Your task to perform on an android device: set default search engine in the chrome app Image 0: 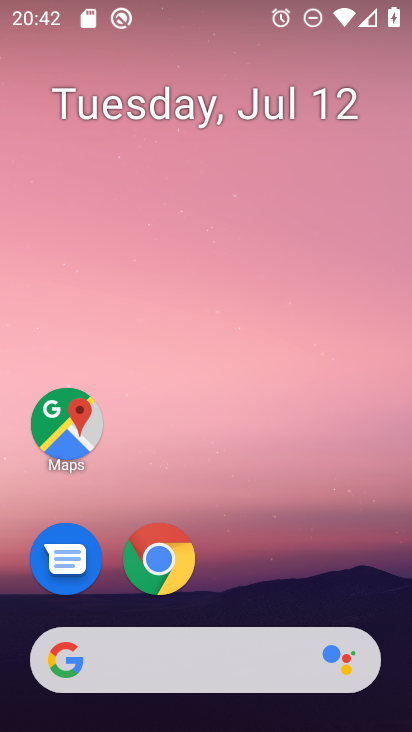
Step 0: drag from (357, 589) to (343, 131)
Your task to perform on an android device: set default search engine in the chrome app Image 1: 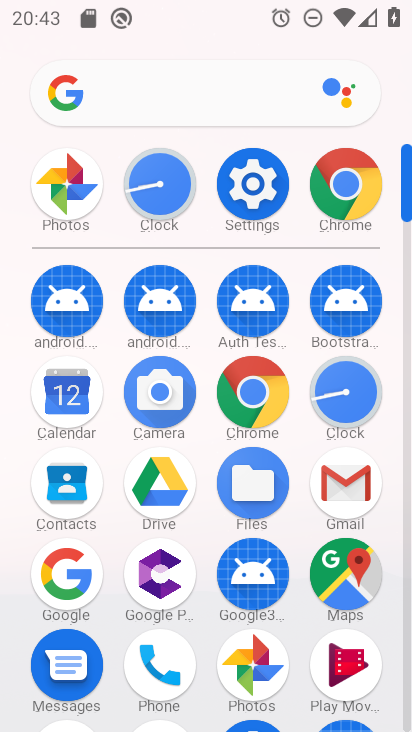
Step 1: click (260, 387)
Your task to perform on an android device: set default search engine in the chrome app Image 2: 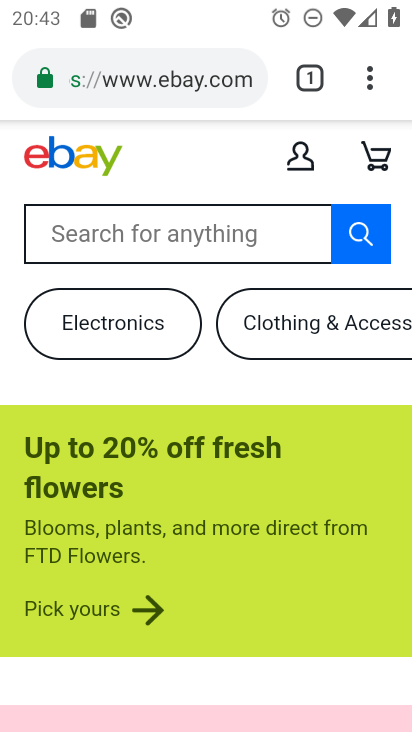
Step 2: click (371, 84)
Your task to perform on an android device: set default search engine in the chrome app Image 3: 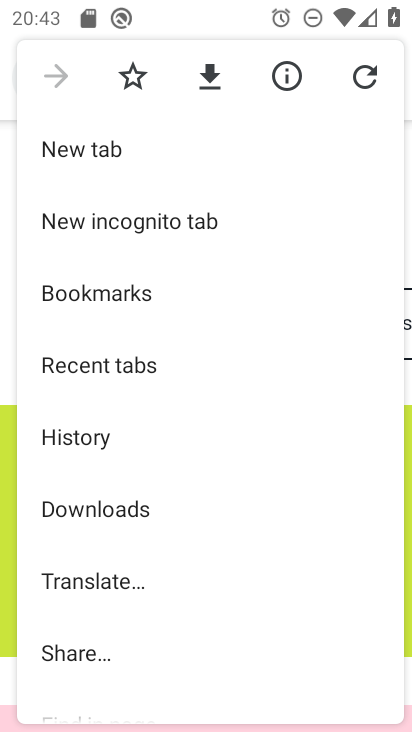
Step 3: drag from (299, 452) to (301, 318)
Your task to perform on an android device: set default search engine in the chrome app Image 4: 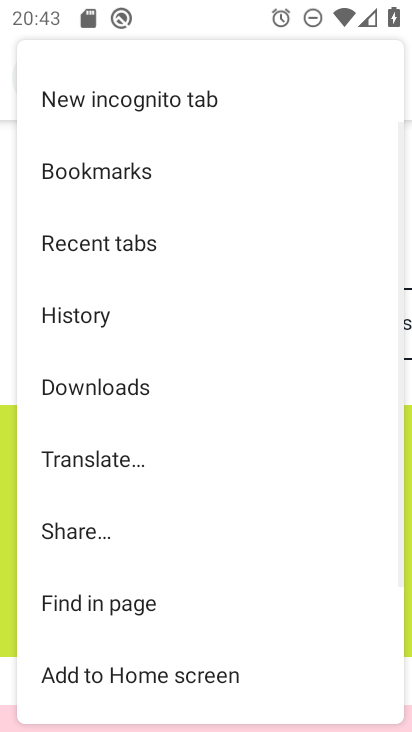
Step 4: drag from (291, 485) to (309, 349)
Your task to perform on an android device: set default search engine in the chrome app Image 5: 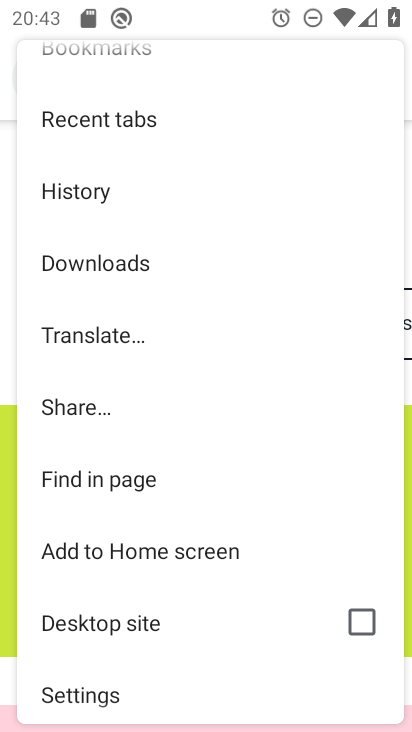
Step 5: drag from (277, 510) to (302, 322)
Your task to perform on an android device: set default search engine in the chrome app Image 6: 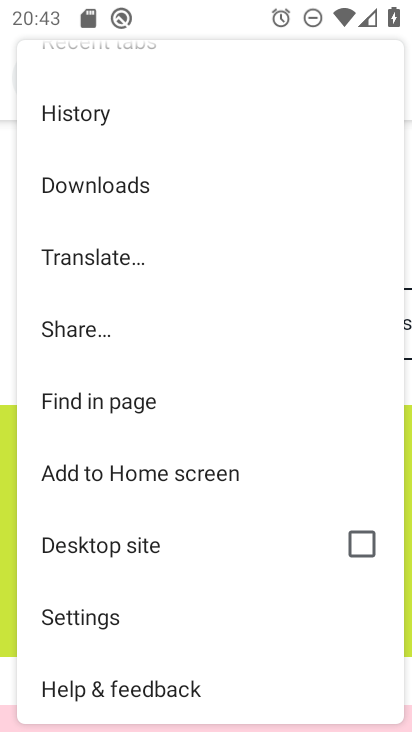
Step 6: click (178, 625)
Your task to perform on an android device: set default search engine in the chrome app Image 7: 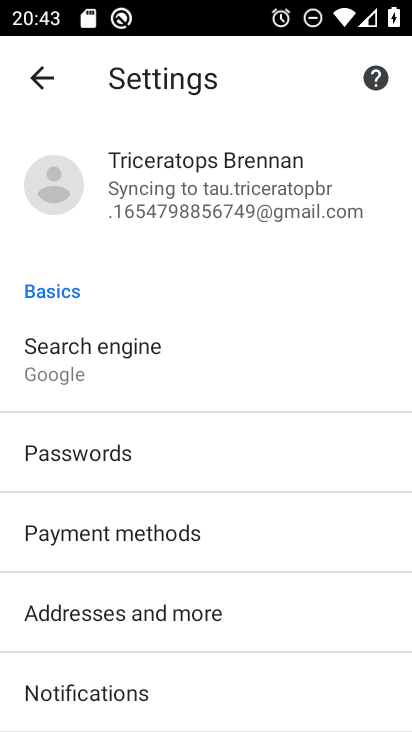
Step 7: drag from (294, 554) to (310, 425)
Your task to perform on an android device: set default search engine in the chrome app Image 8: 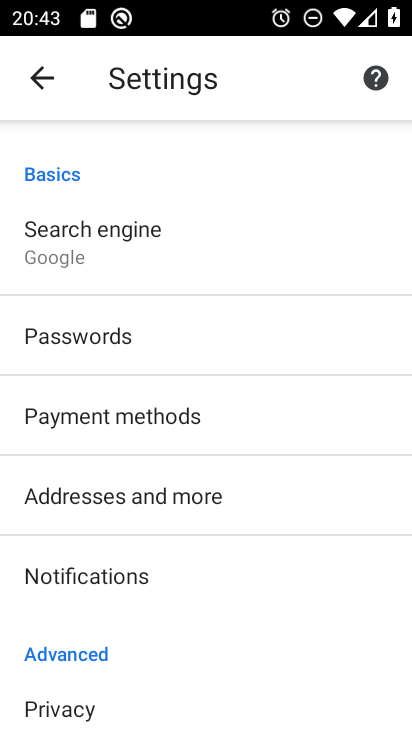
Step 8: drag from (298, 605) to (316, 496)
Your task to perform on an android device: set default search engine in the chrome app Image 9: 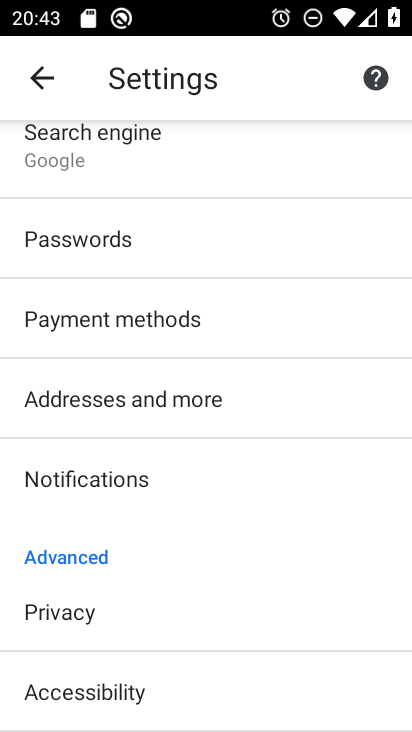
Step 9: drag from (313, 599) to (317, 464)
Your task to perform on an android device: set default search engine in the chrome app Image 10: 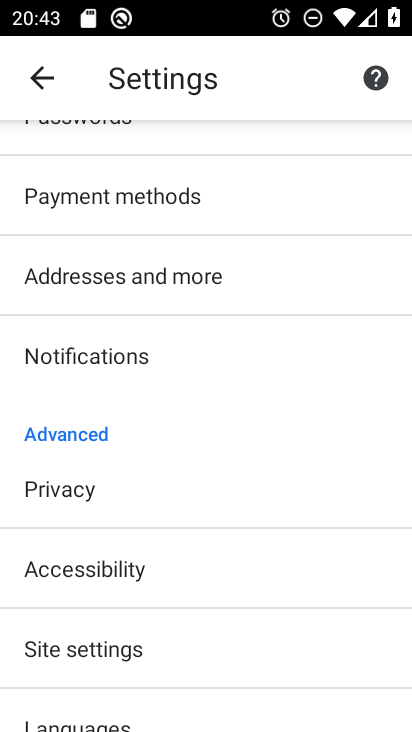
Step 10: drag from (341, 575) to (342, 391)
Your task to perform on an android device: set default search engine in the chrome app Image 11: 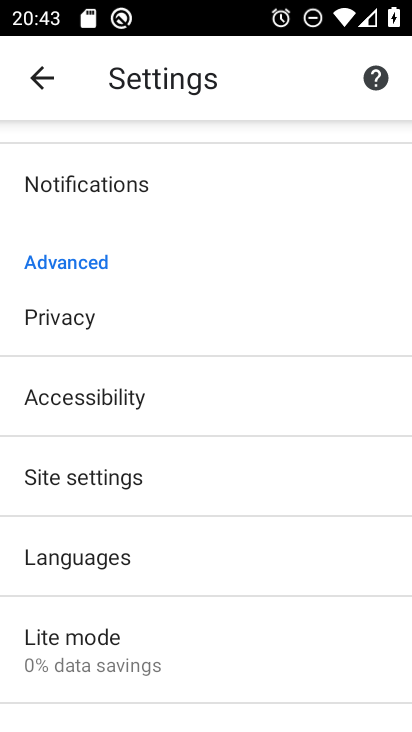
Step 11: drag from (341, 587) to (340, 390)
Your task to perform on an android device: set default search engine in the chrome app Image 12: 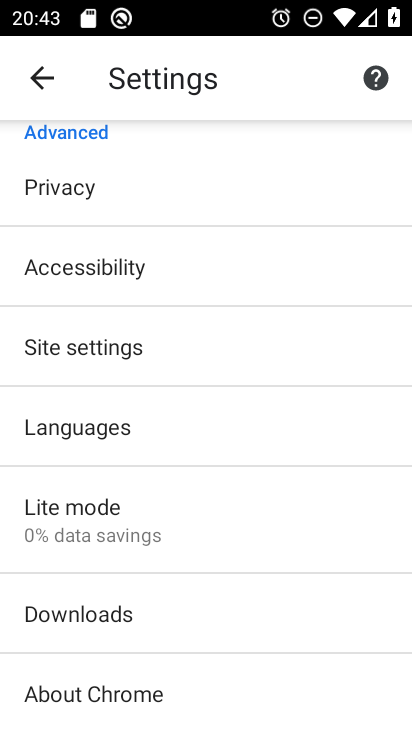
Step 12: drag from (337, 276) to (339, 481)
Your task to perform on an android device: set default search engine in the chrome app Image 13: 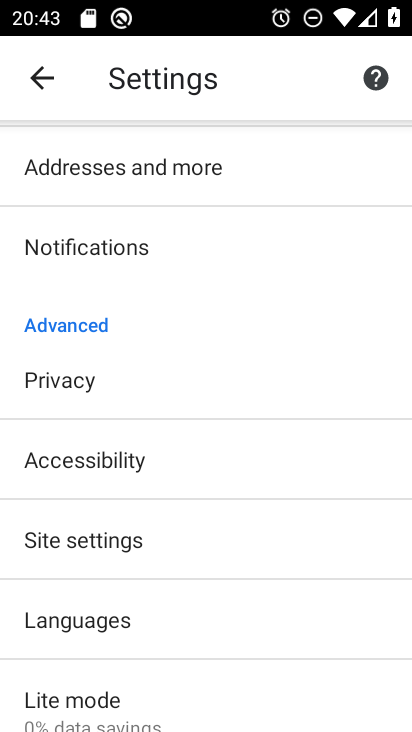
Step 13: drag from (334, 289) to (319, 485)
Your task to perform on an android device: set default search engine in the chrome app Image 14: 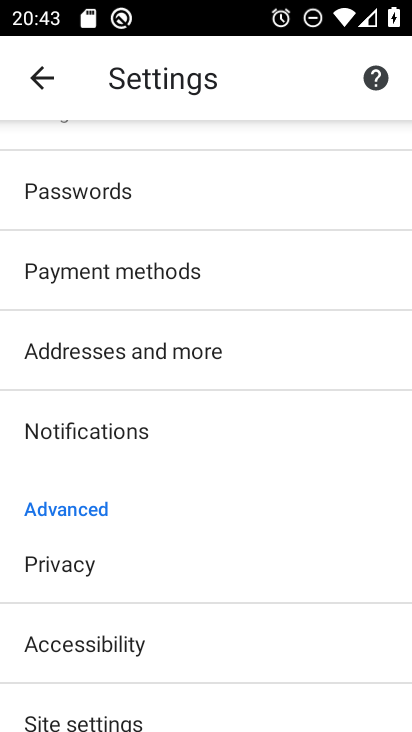
Step 14: drag from (316, 222) to (310, 459)
Your task to perform on an android device: set default search engine in the chrome app Image 15: 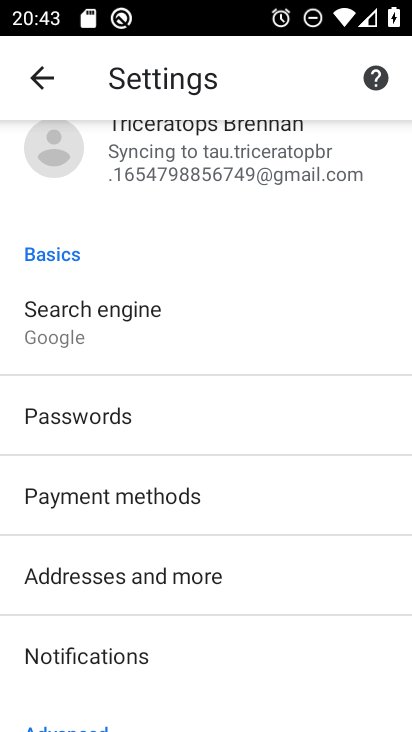
Step 15: drag from (328, 224) to (333, 444)
Your task to perform on an android device: set default search engine in the chrome app Image 16: 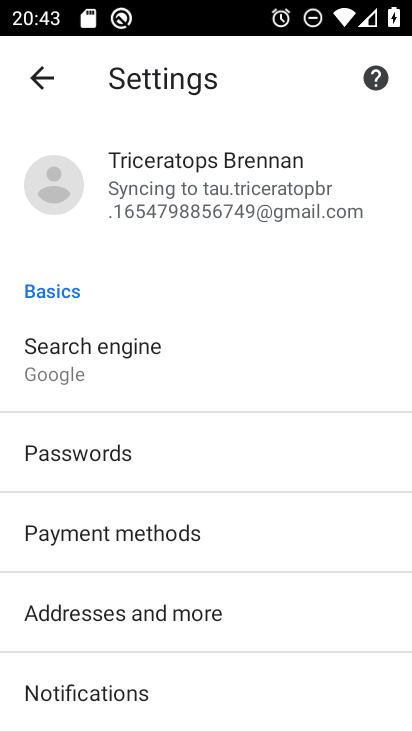
Step 16: click (87, 361)
Your task to perform on an android device: set default search engine in the chrome app Image 17: 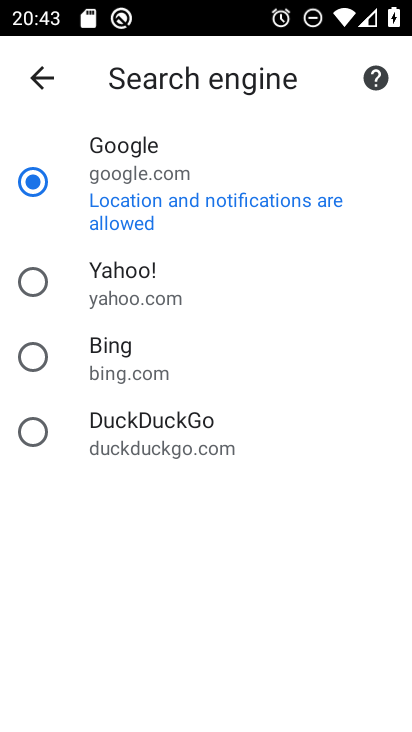
Step 17: click (103, 361)
Your task to perform on an android device: set default search engine in the chrome app Image 18: 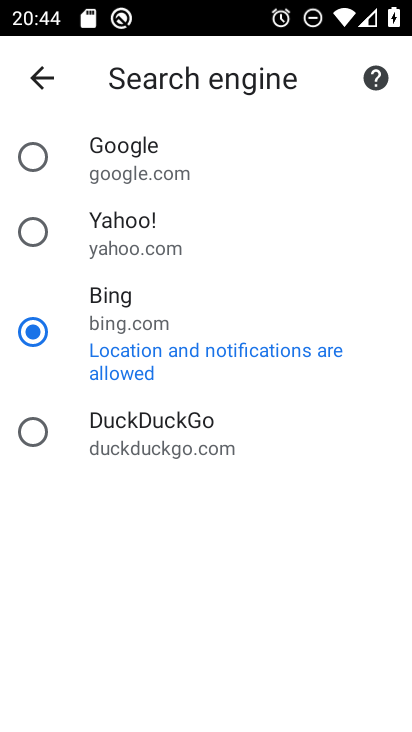
Step 18: task complete